Your task to perform on an android device: Search for Italian restaurants on Maps Image 0: 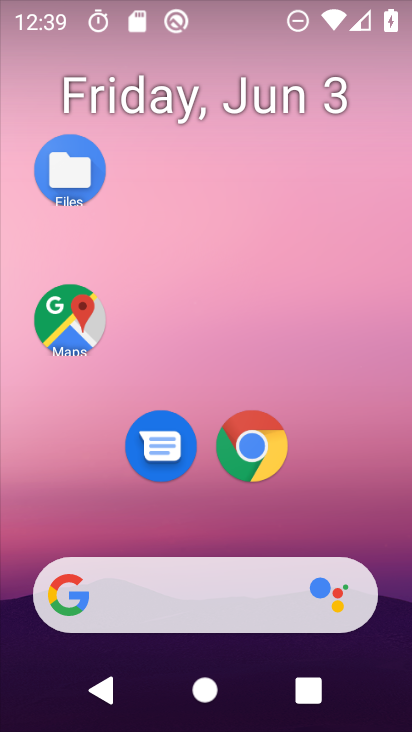
Step 0: drag from (211, 462) to (183, 60)
Your task to perform on an android device: Search for Italian restaurants on Maps Image 1: 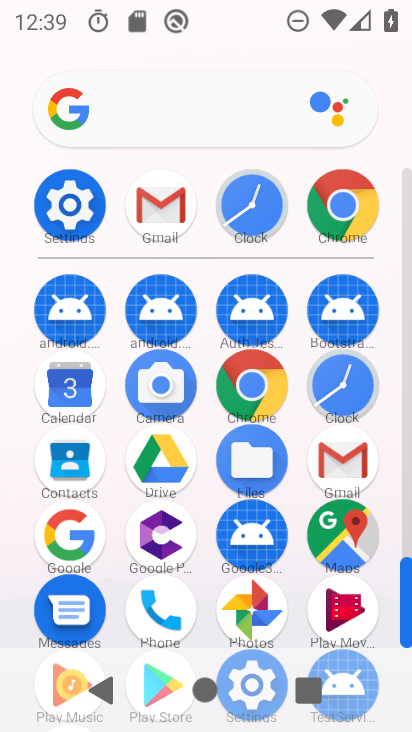
Step 1: click (361, 544)
Your task to perform on an android device: Search for Italian restaurants on Maps Image 2: 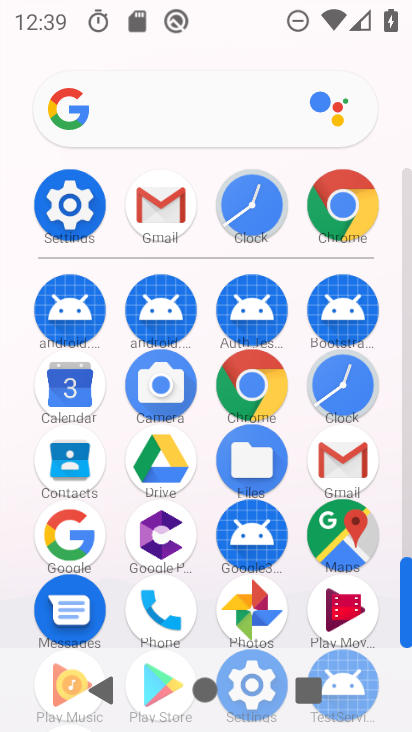
Step 2: click (363, 546)
Your task to perform on an android device: Search for Italian restaurants on Maps Image 3: 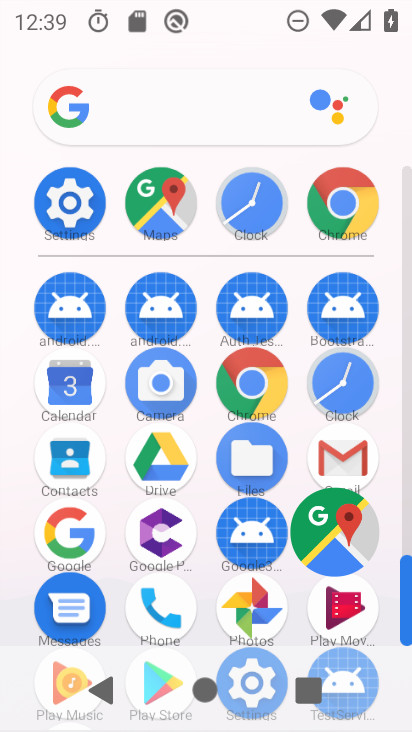
Step 3: click (363, 546)
Your task to perform on an android device: Search for Italian restaurants on Maps Image 4: 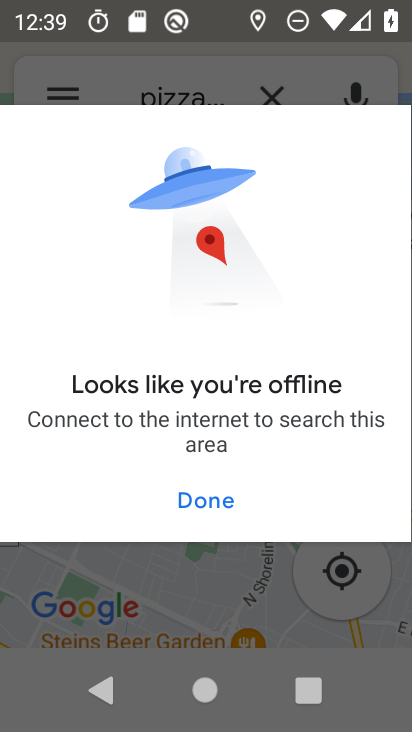
Step 4: task complete